Your task to perform on an android device: open chrome privacy settings Image 0: 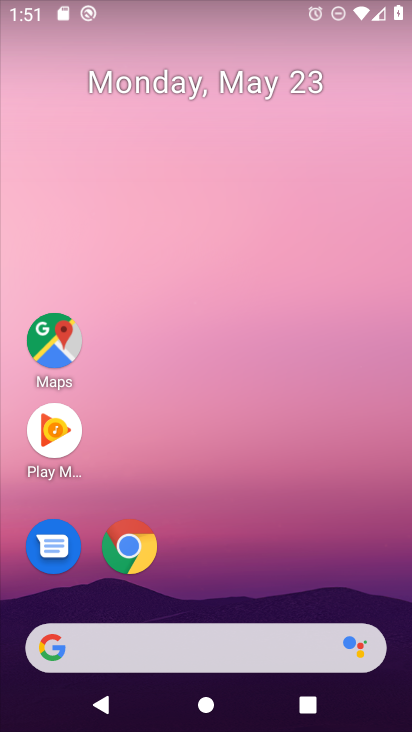
Step 0: drag from (266, 586) to (235, 9)
Your task to perform on an android device: open chrome privacy settings Image 1: 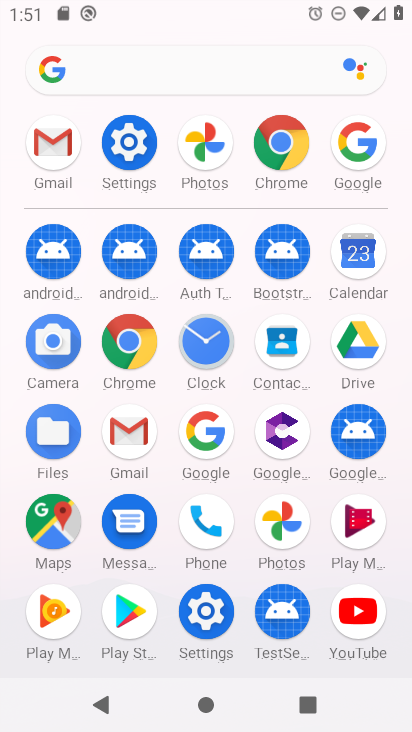
Step 1: click (116, 163)
Your task to perform on an android device: open chrome privacy settings Image 2: 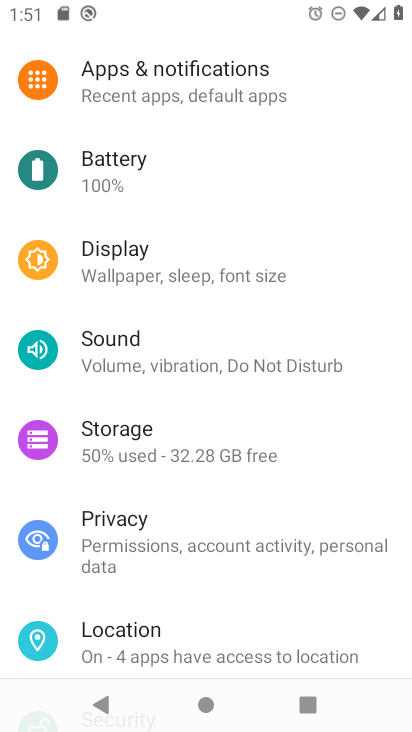
Step 2: click (142, 564)
Your task to perform on an android device: open chrome privacy settings Image 3: 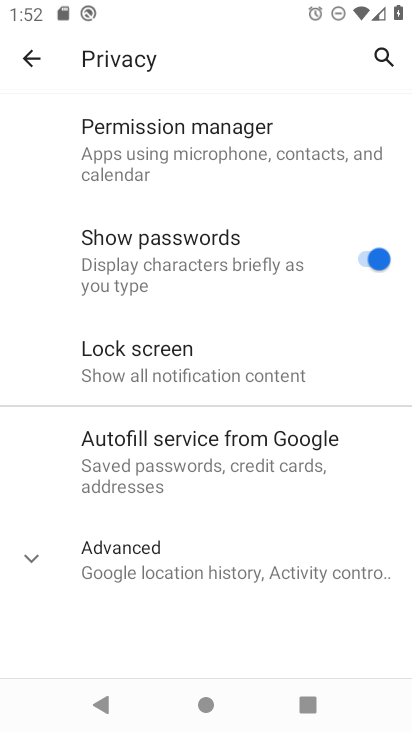
Step 3: task complete